Your task to perform on an android device: Add "macbook air" to the cart on costco, then select checkout. Image 0: 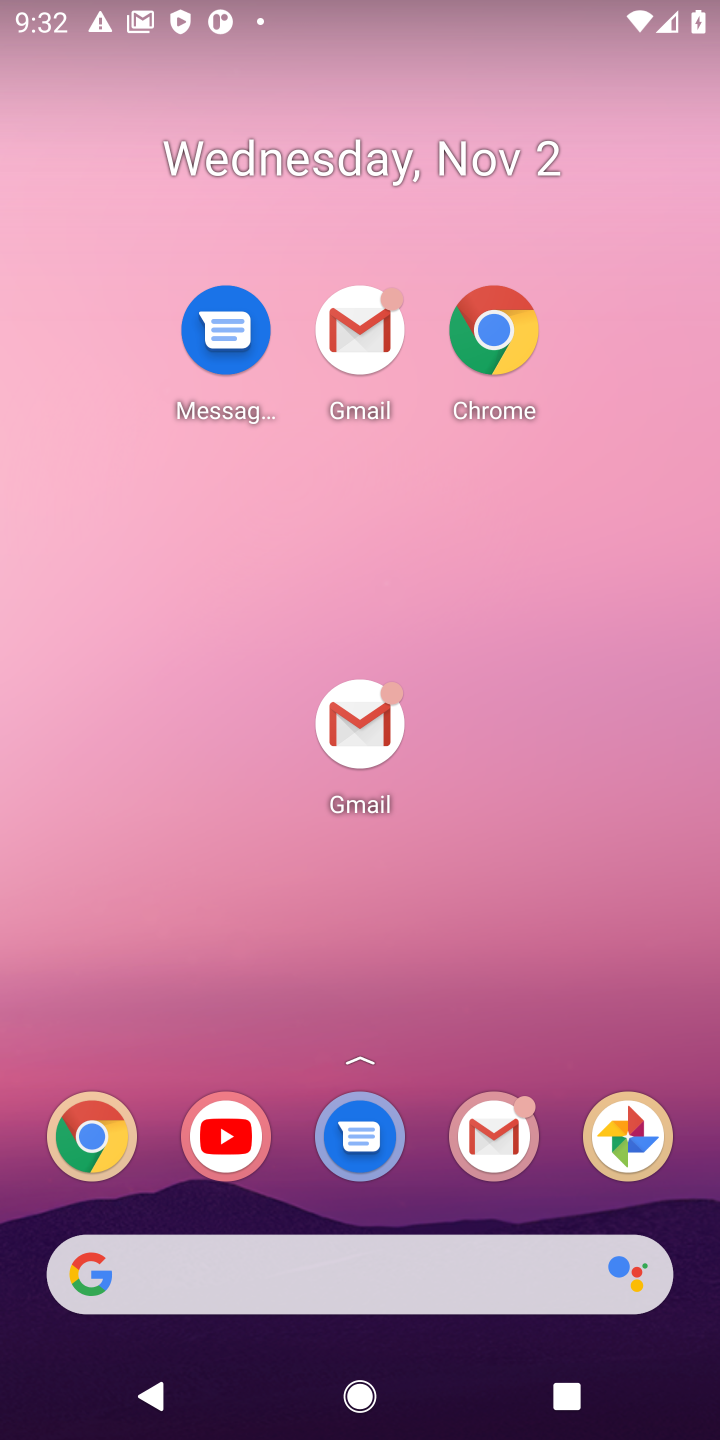
Step 0: drag from (321, 1045) to (313, 332)
Your task to perform on an android device: Add "macbook air" to the cart on costco, then select checkout. Image 1: 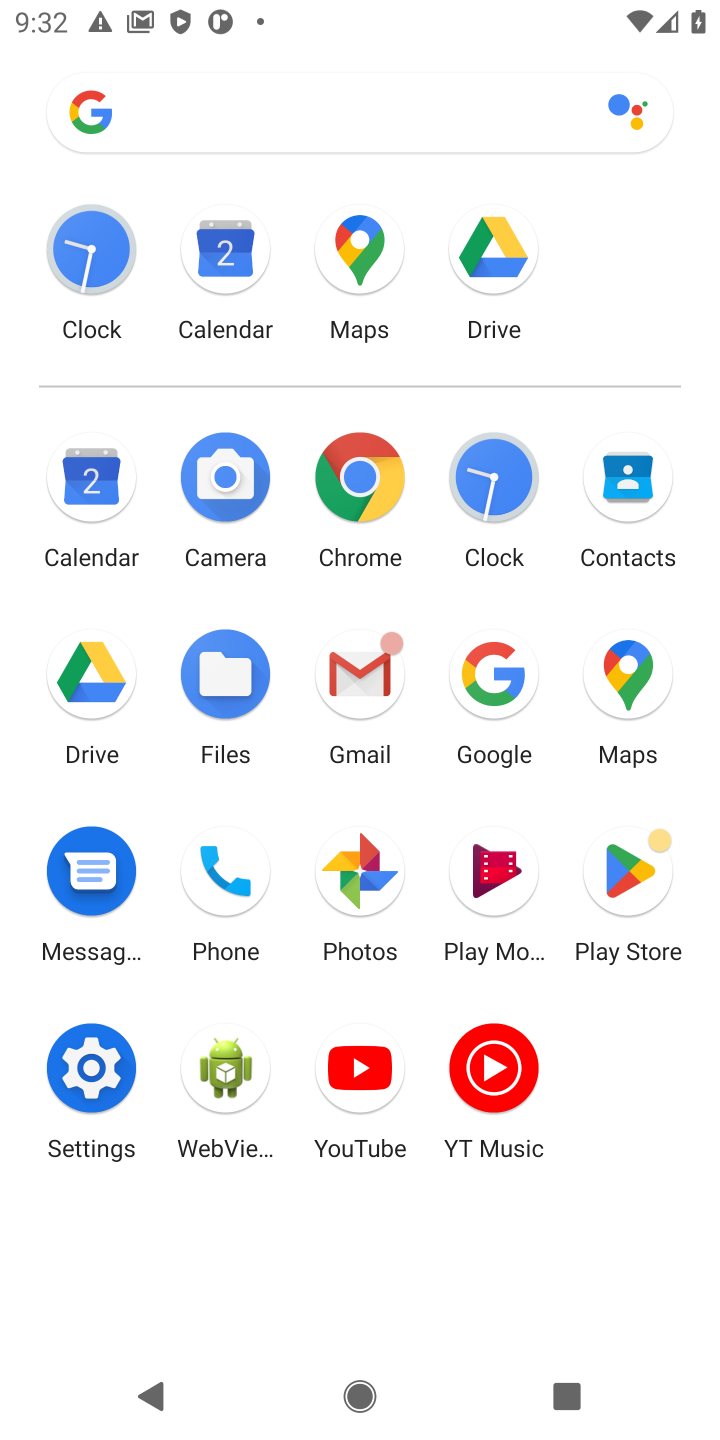
Step 1: click (476, 671)
Your task to perform on an android device: Add "macbook air" to the cart on costco, then select checkout. Image 2: 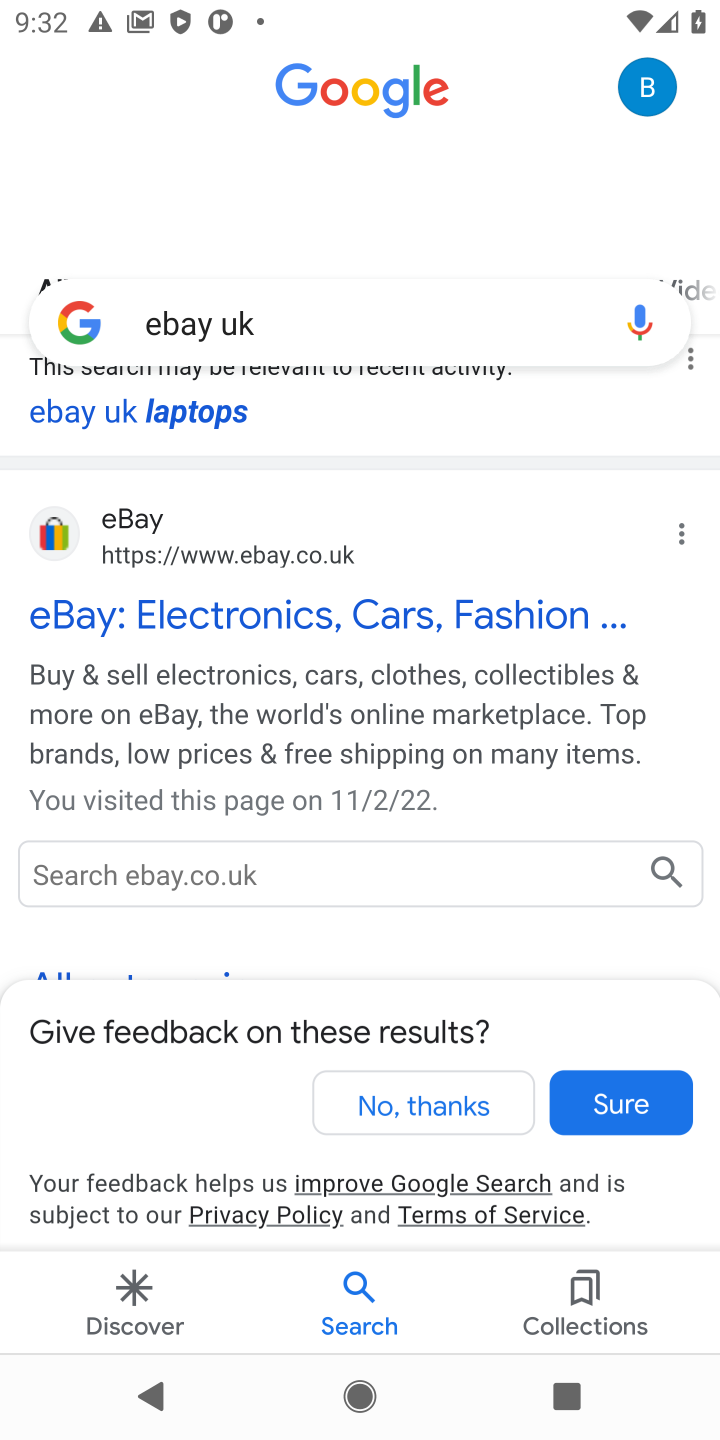
Step 2: click (409, 306)
Your task to perform on an android device: Add "macbook air" to the cart on costco, then select checkout. Image 3: 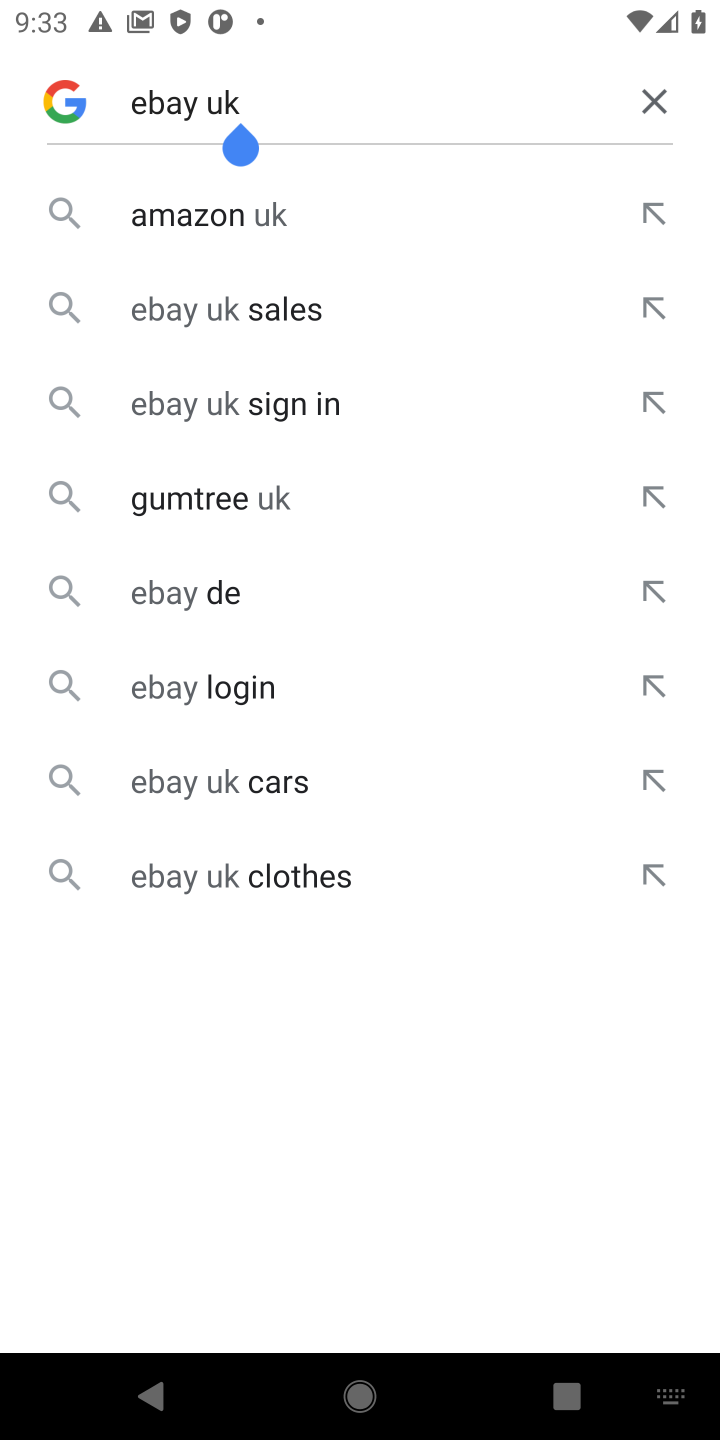
Step 3: click (651, 100)
Your task to perform on an android device: Add "macbook air" to the cart on costco, then select checkout. Image 4: 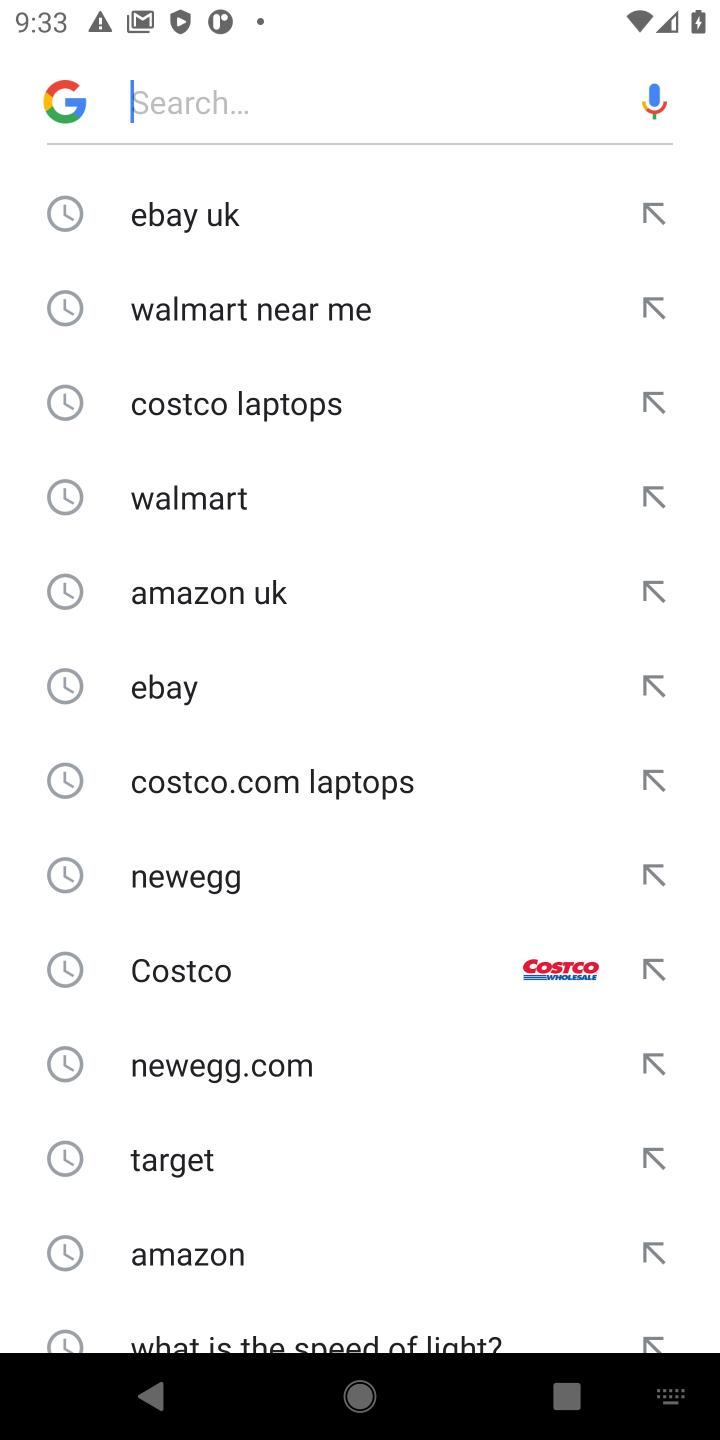
Step 4: click (246, 103)
Your task to perform on an android device: Add "macbook air" to the cart on costco, then select checkout. Image 5: 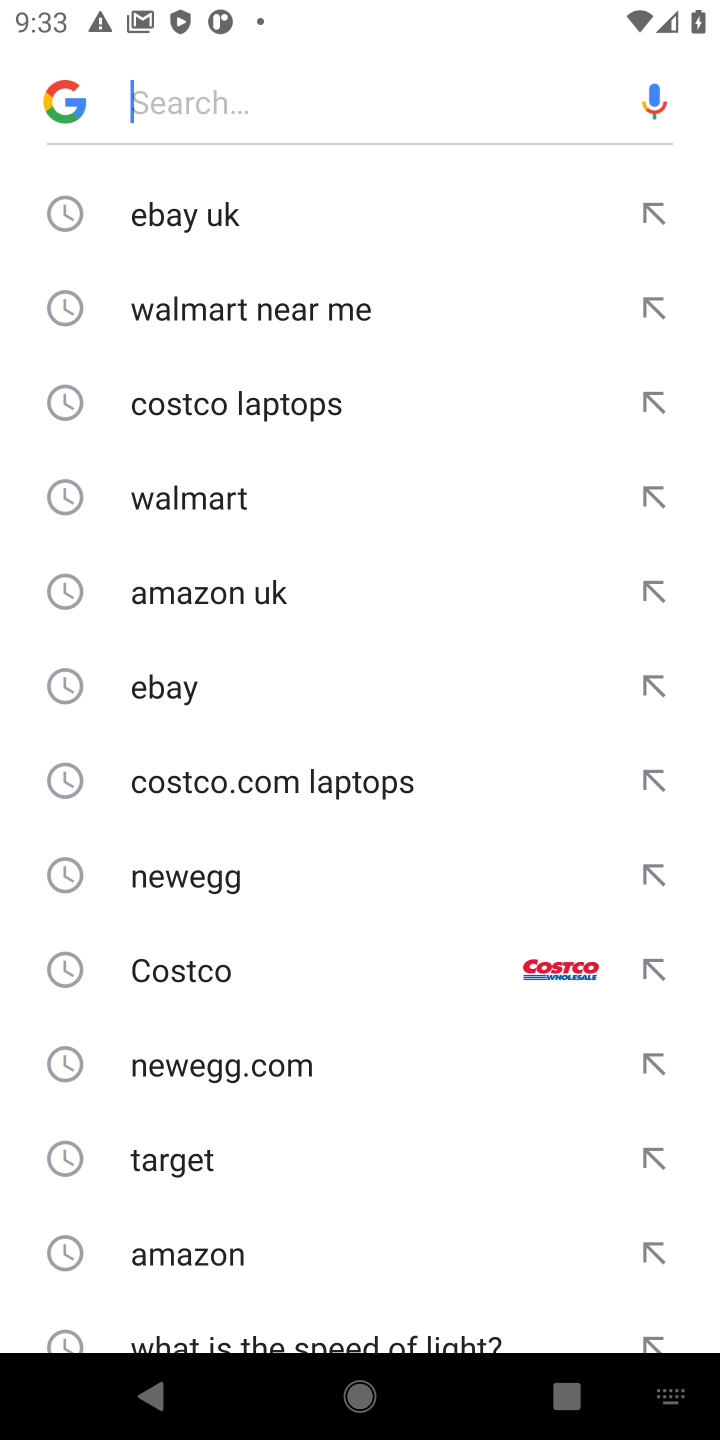
Step 5: type "costco "
Your task to perform on an android device: Add "macbook air" to the cart on costco, then select checkout. Image 6: 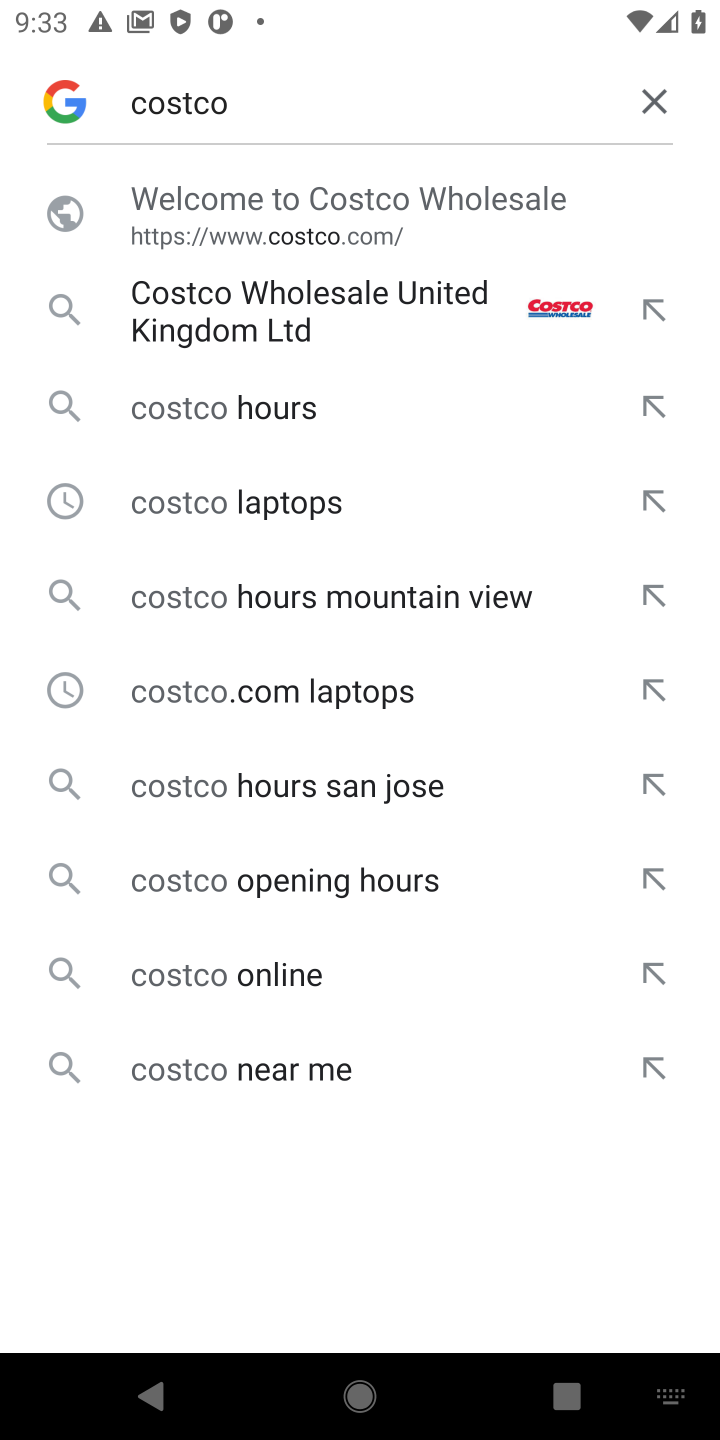
Step 6: click (257, 1083)
Your task to perform on an android device: Add "macbook air" to the cart on costco, then select checkout. Image 7: 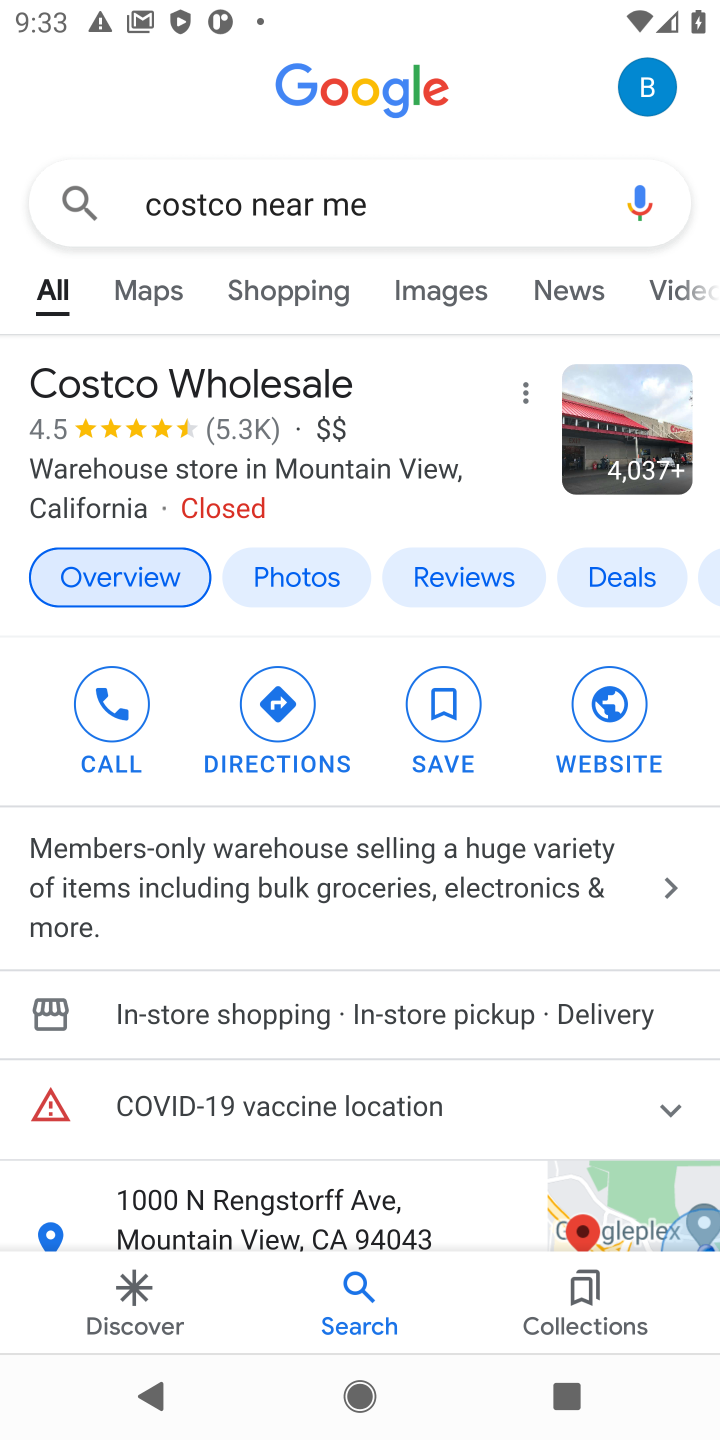
Step 7: drag from (167, 1187) to (297, 406)
Your task to perform on an android device: Add "macbook air" to the cart on costco, then select checkout. Image 8: 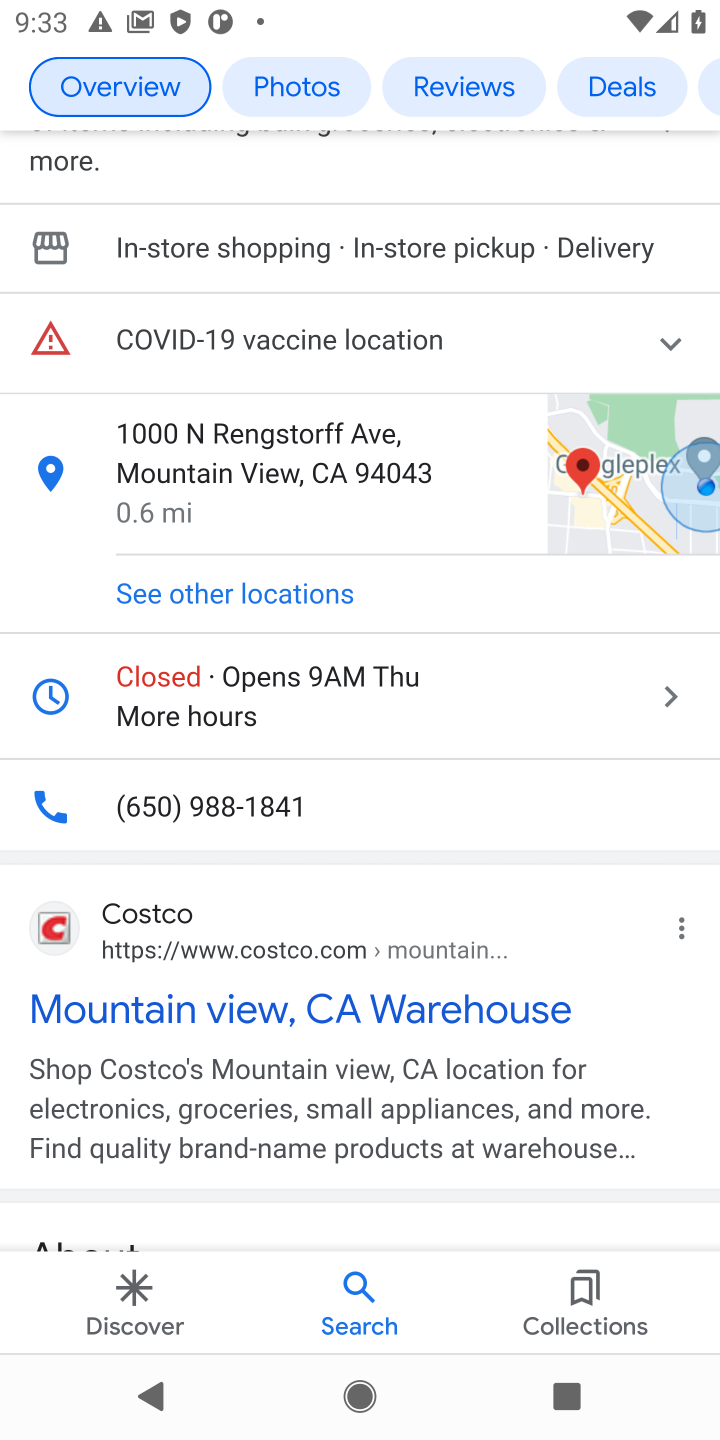
Step 8: click (61, 923)
Your task to perform on an android device: Add "macbook air" to the cart on costco, then select checkout. Image 9: 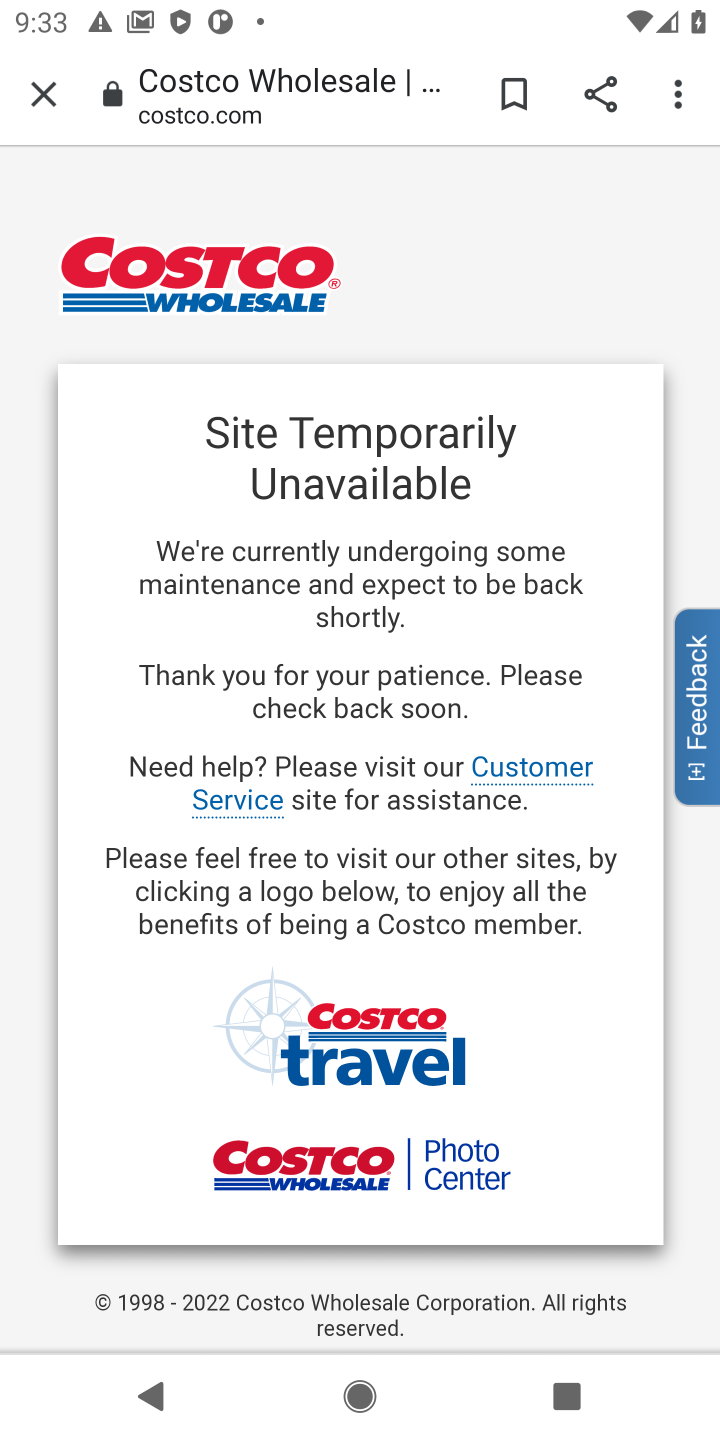
Step 9: drag from (449, 1210) to (467, 604)
Your task to perform on an android device: Add "macbook air" to the cart on costco, then select checkout. Image 10: 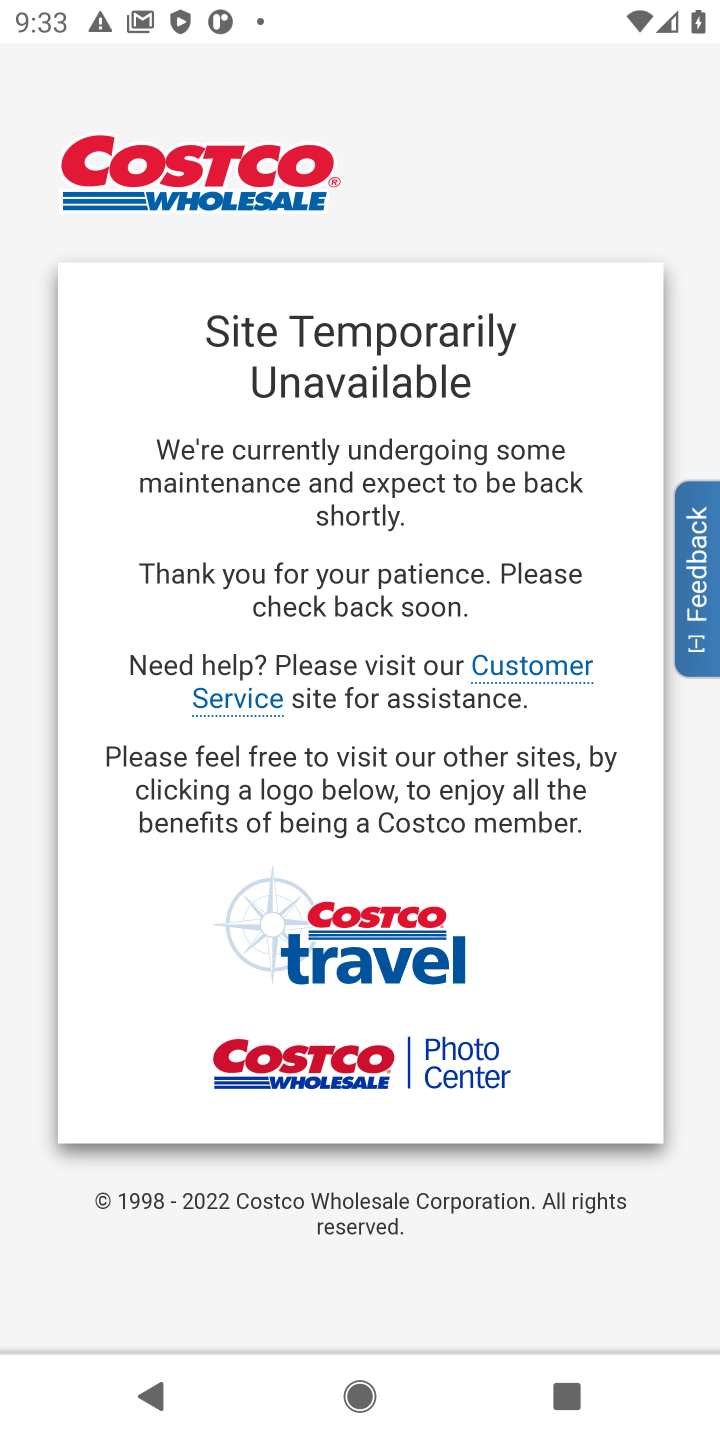
Step 10: click (365, 1200)
Your task to perform on an android device: Add "macbook air" to the cart on costco, then select checkout. Image 11: 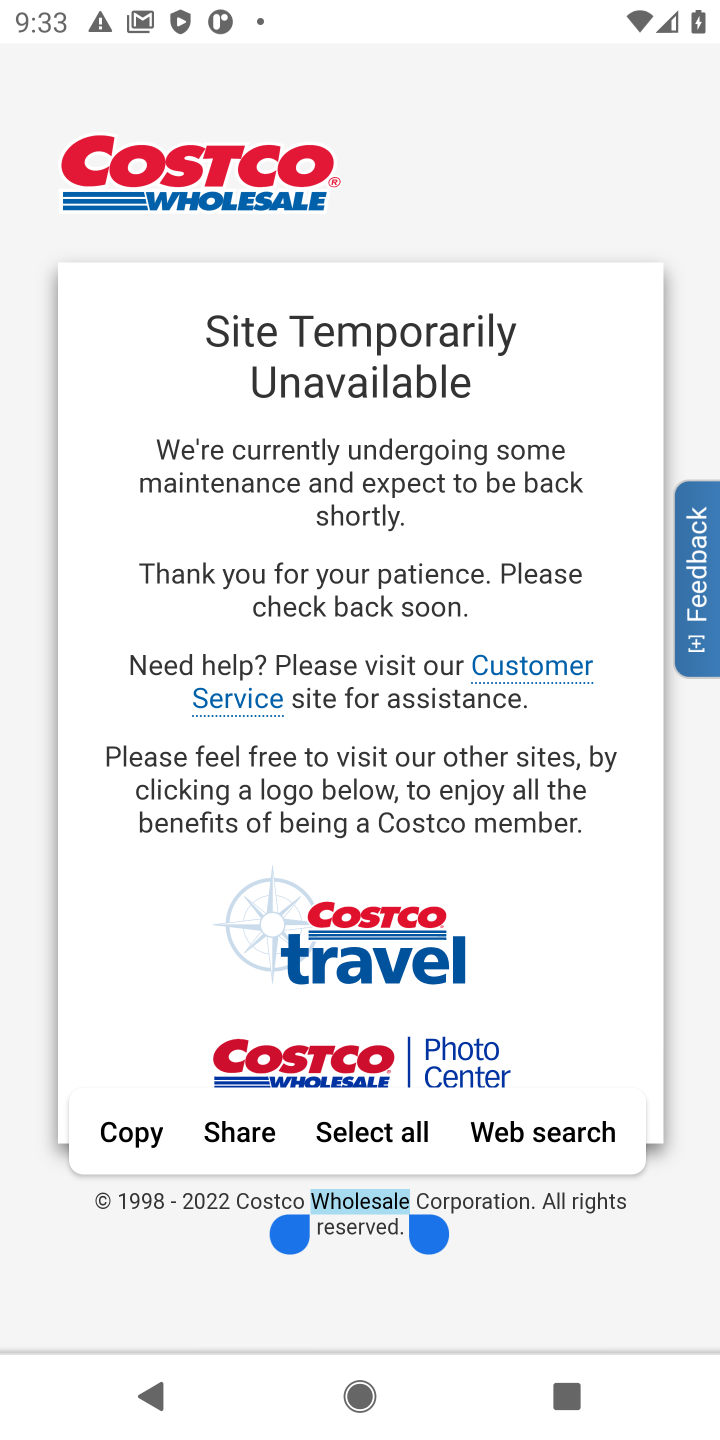
Step 11: task complete